Your task to perform on an android device: Open eBay Image 0: 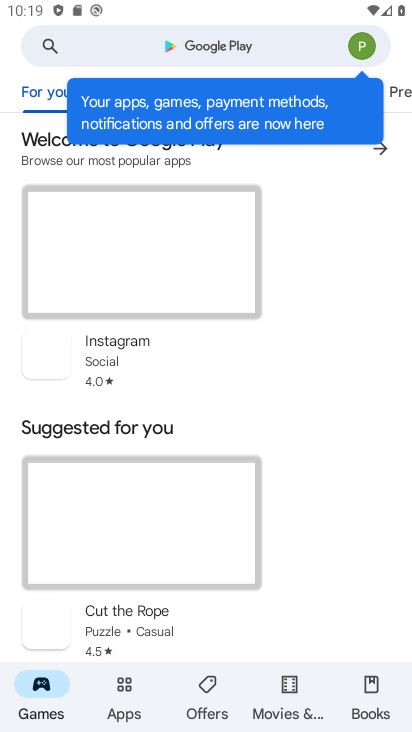
Step 0: press home button
Your task to perform on an android device: Open eBay Image 1: 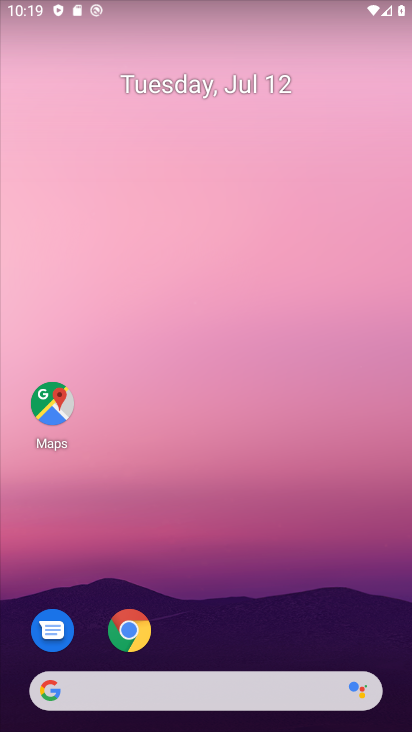
Step 1: drag from (363, 618) to (372, 138)
Your task to perform on an android device: Open eBay Image 2: 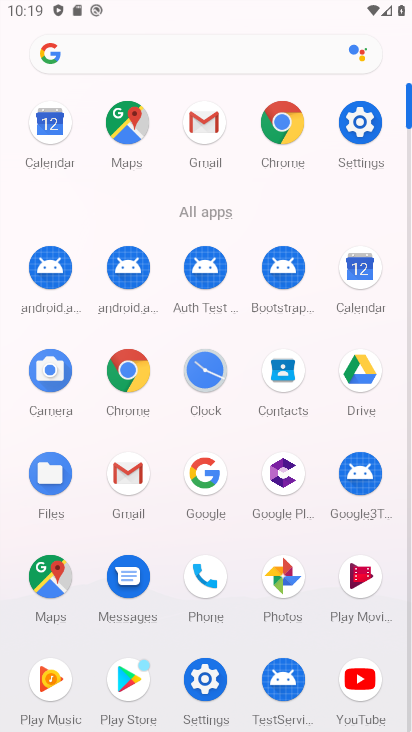
Step 2: click (128, 368)
Your task to perform on an android device: Open eBay Image 3: 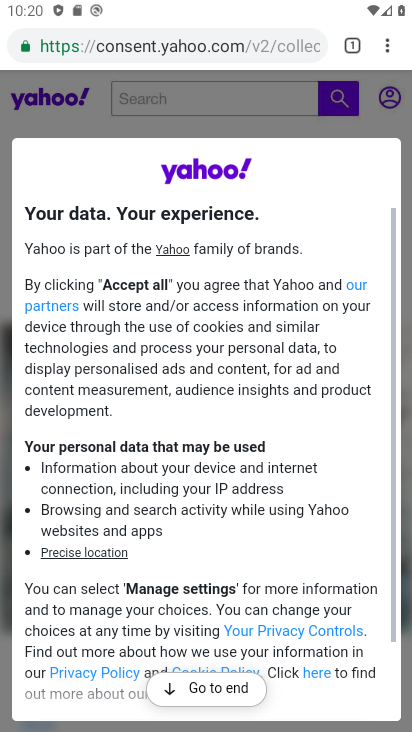
Step 3: click (230, 44)
Your task to perform on an android device: Open eBay Image 4: 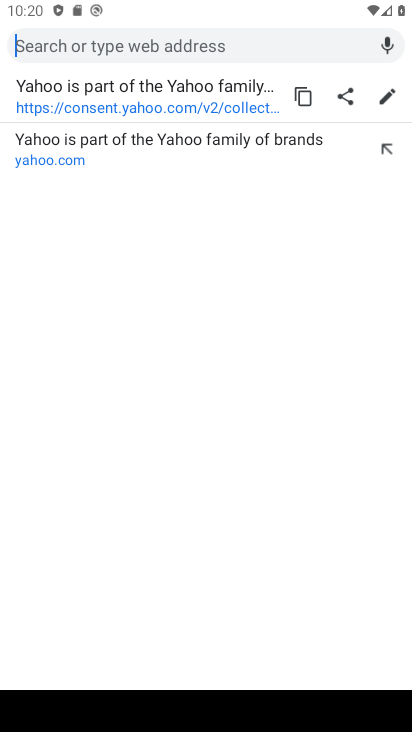
Step 4: type "ebay"
Your task to perform on an android device: Open eBay Image 5: 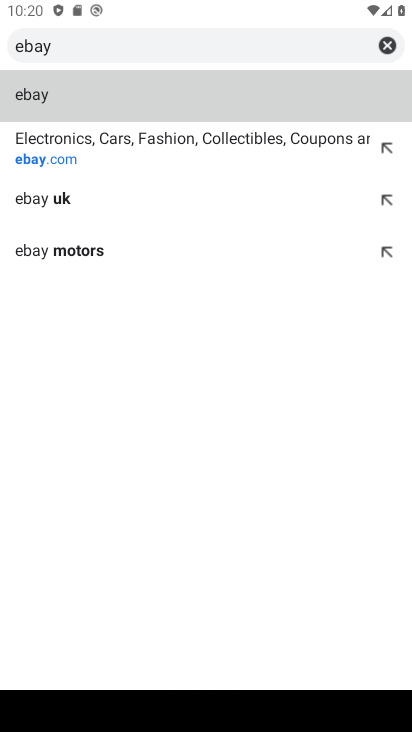
Step 5: click (168, 99)
Your task to perform on an android device: Open eBay Image 6: 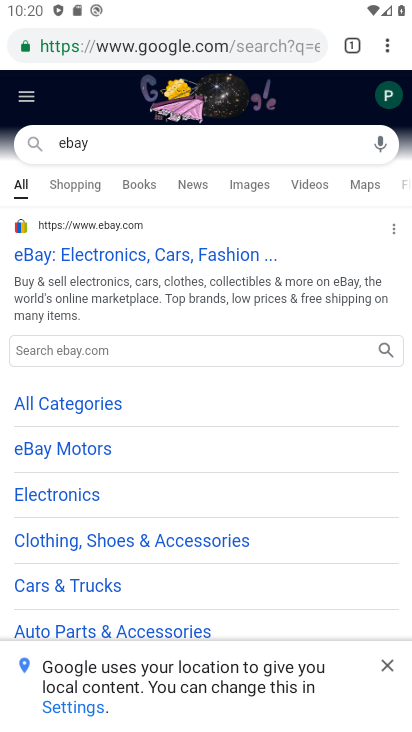
Step 6: task complete